Your task to perform on an android device: delete a single message in the gmail app Image 0: 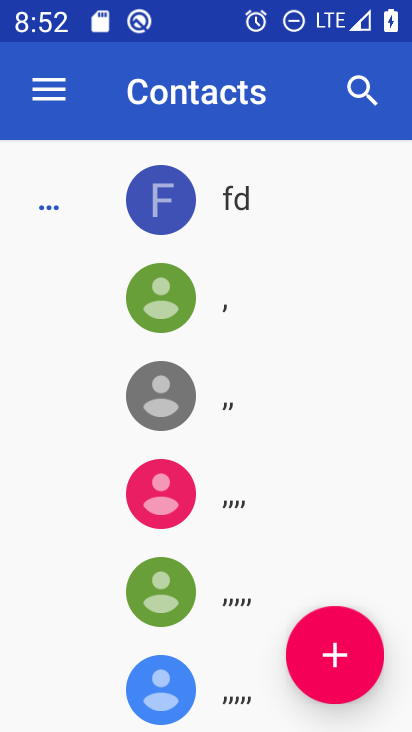
Step 0: press home button
Your task to perform on an android device: delete a single message in the gmail app Image 1: 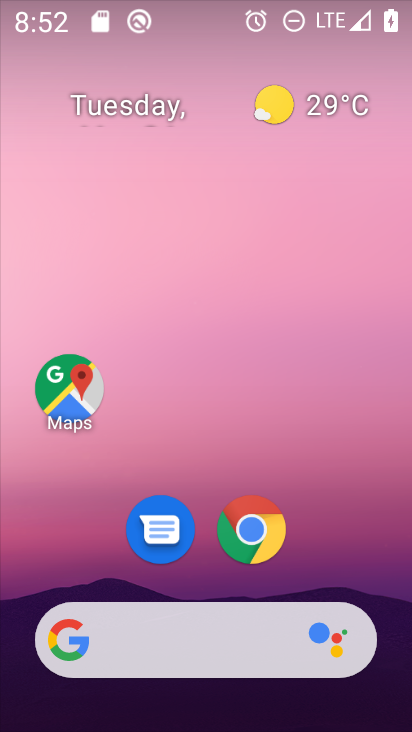
Step 1: drag from (386, 630) to (320, 77)
Your task to perform on an android device: delete a single message in the gmail app Image 2: 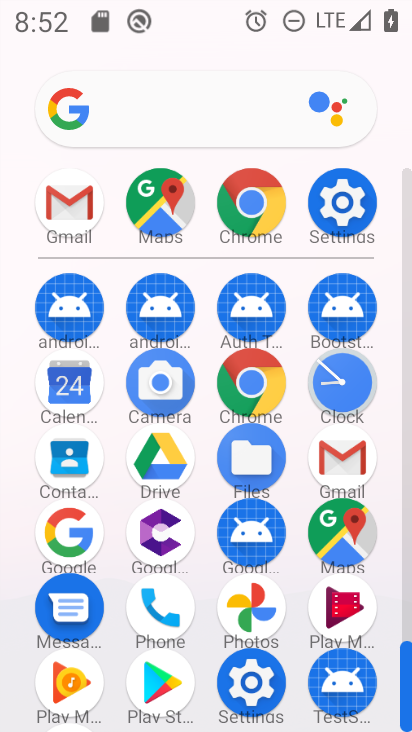
Step 2: click (343, 474)
Your task to perform on an android device: delete a single message in the gmail app Image 3: 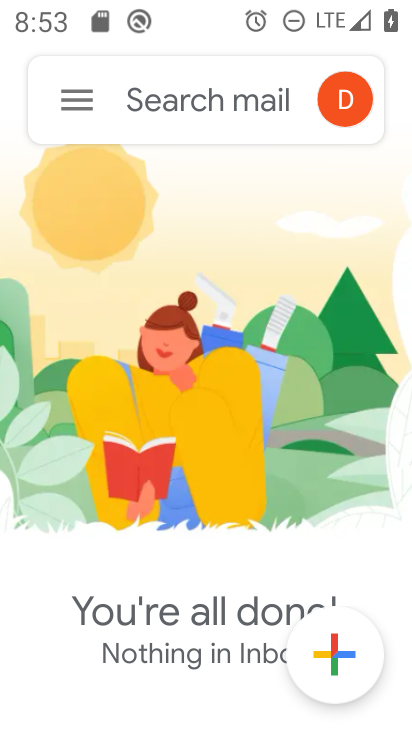
Step 3: task complete